Your task to perform on an android device: open a bookmark in the chrome app Image 0: 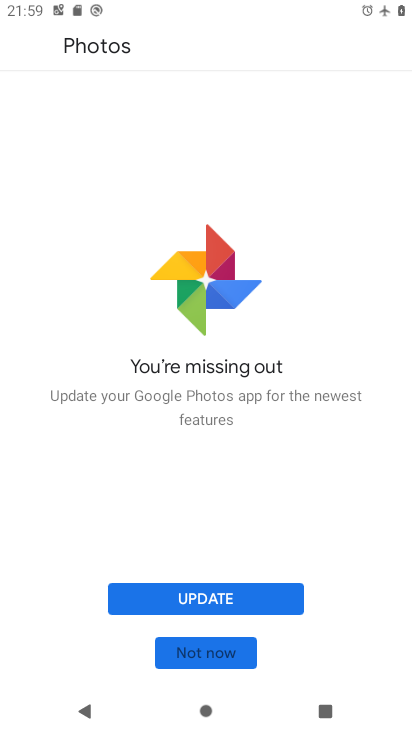
Step 0: press home button
Your task to perform on an android device: open a bookmark in the chrome app Image 1: 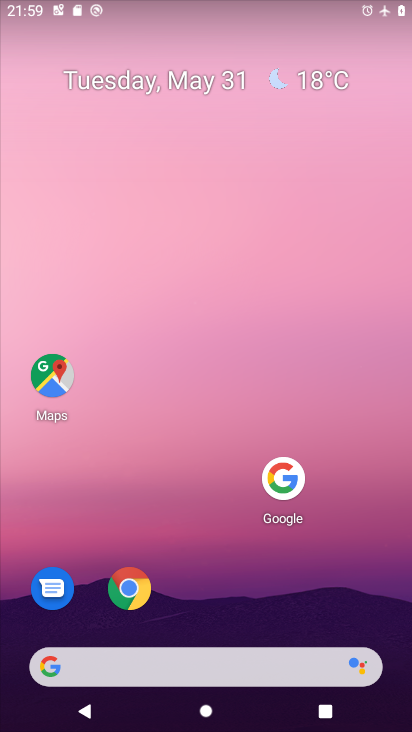
Step 1: click (133, 598)
Your task to perform on an android device: open a bookmark in the chrome app Image 2: 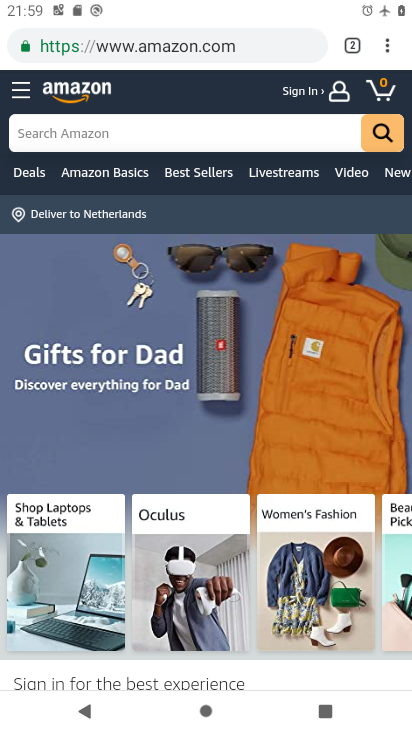
Step 2: task complete